Your task to perform on an android device: Toggle the flashlight Image 0: 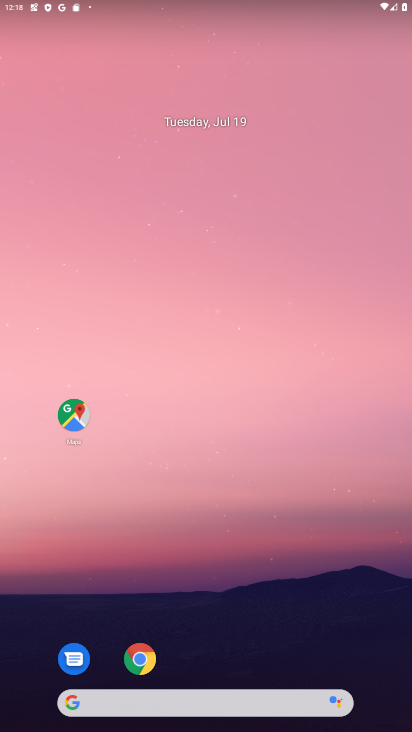
Step 0: drag from (144, 696) to (229, 110)
Your task to perform on an android device: Toggle the flashlight Image 1: 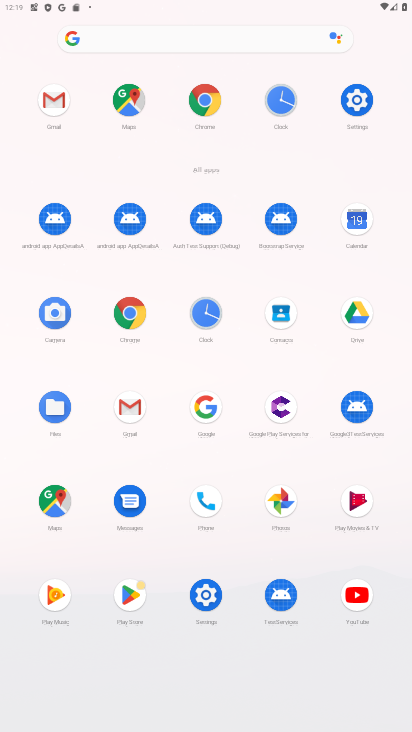
Step 1: click (207, 598)
Your task to perform on an android device: Toggle the flashlight Image 2: 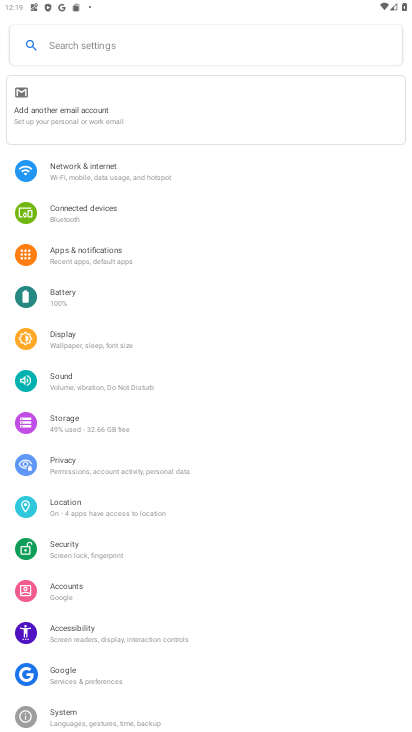
Step 2: click (79, 343)
Your task to perform on an android device: Toggle the flashlight Image 3: 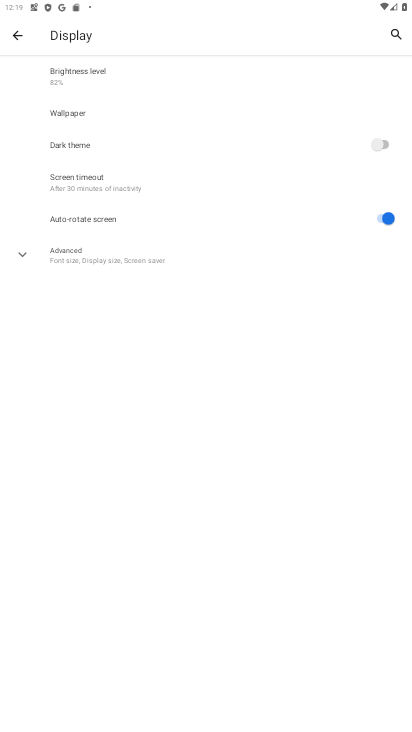
Step 3: click (71, 113)
Your task to perform on an android device: Toggle the flashlight Image 4: 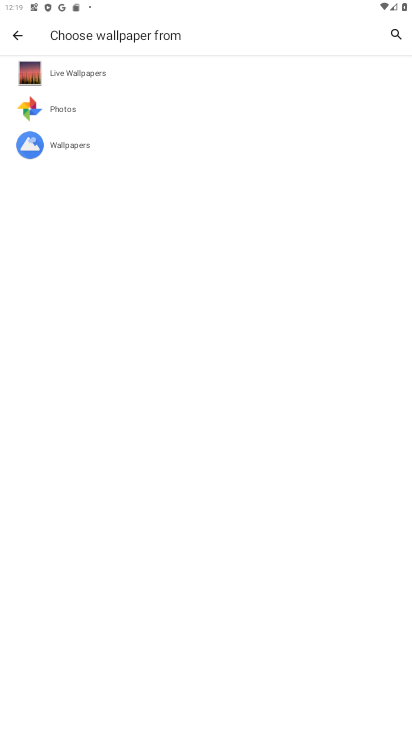
Step 4: press back button
Your task to perform on an android device: Toggle the flashlight Image 5: 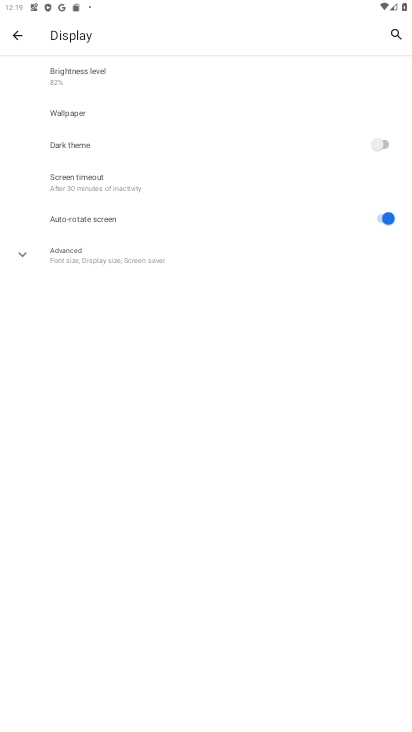
Step 5: click (78, 73)
Your task to perform on an android device: Toggle the flashlight Image 6: 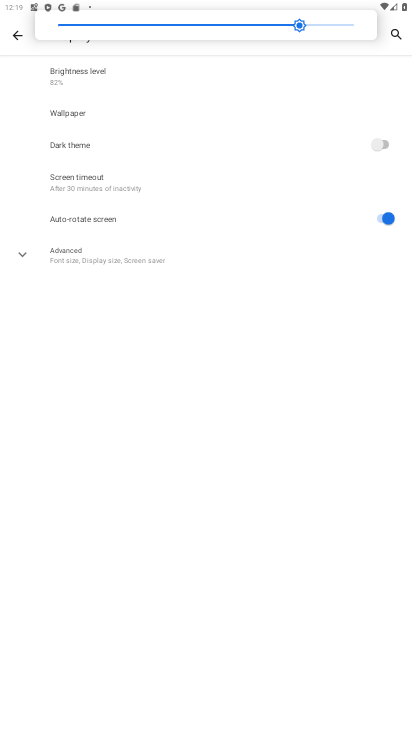
Step 6: click (70, 180)
Your task to perform on an android device: Toggle the flashlight Image 7: 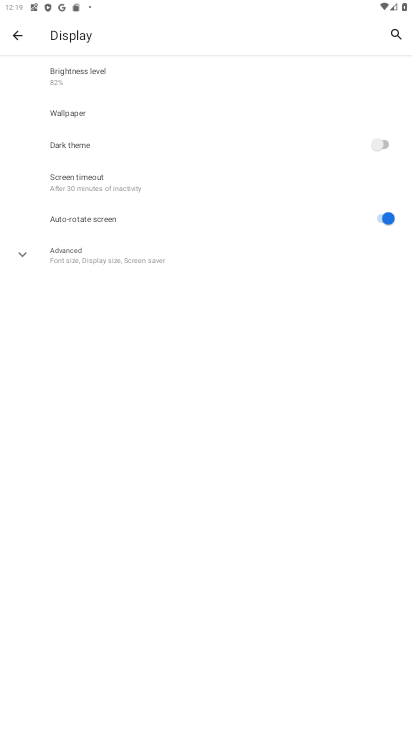
Step 7: task complete